Your task to perform on an android device: turn notification dots off Image 0: 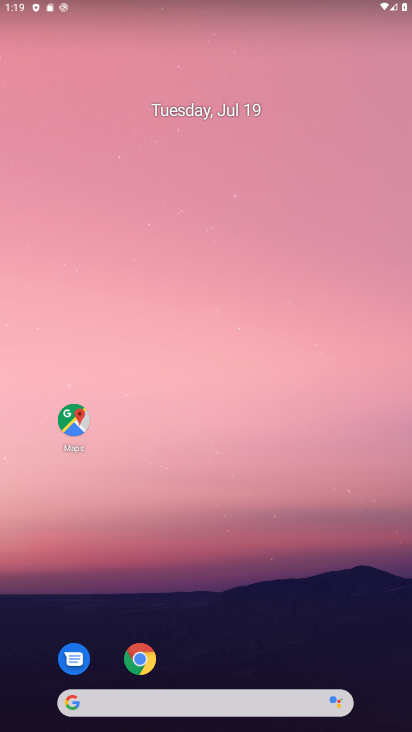
Step 0: drag from (256, 652) to (190, 146)
Your task to perform on an android device: turn notification dots off Image 1: 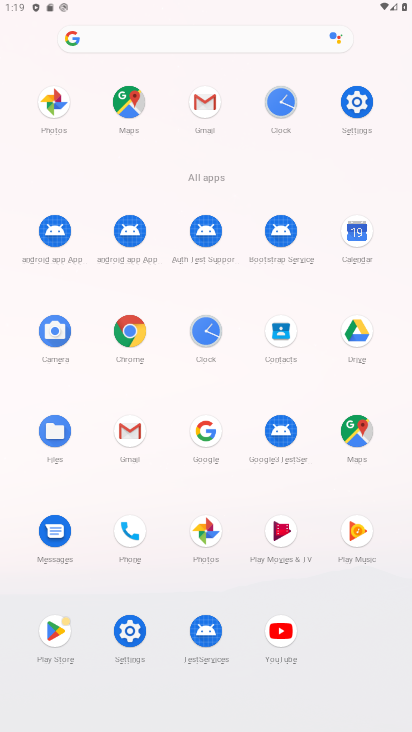
Step 1: click (351, 107)
Your task to perform on an android device: turn notification dots off Image 2: 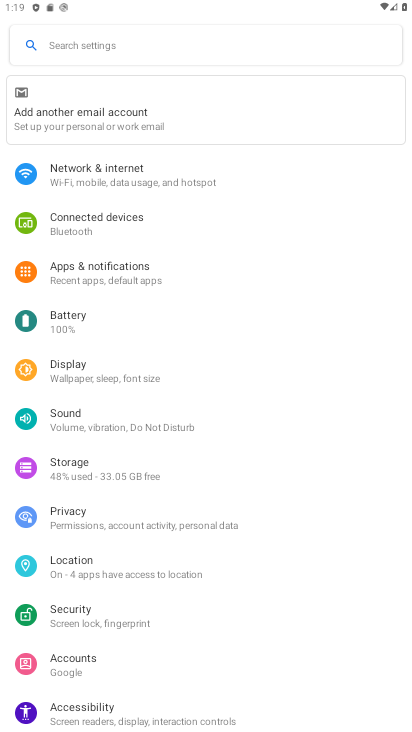
Step 2: click (134, 279)
Your task to perform on an android device: turn notification dots off Image 3: 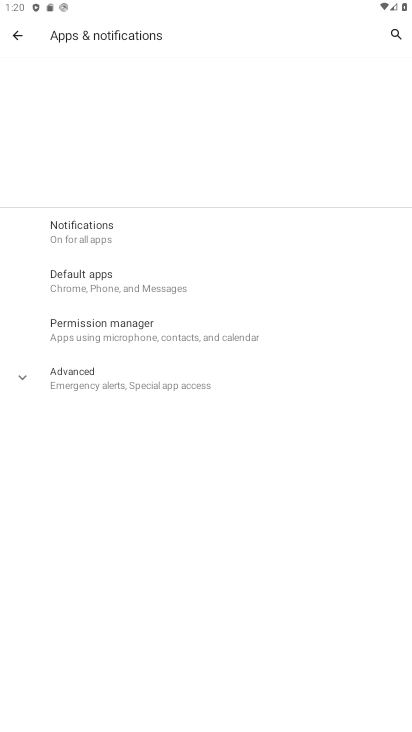
Step 3: click (139, 224)
Your task to perform on an android device: turn notification dots off Image 4: 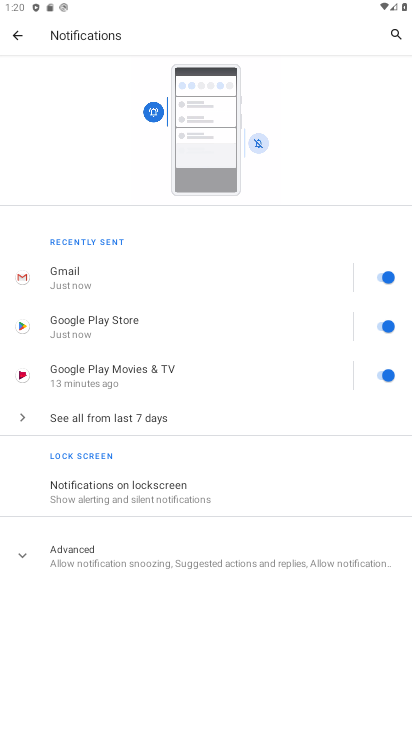
Step 4: click (180, 555)
Your task to perform on an android device: turn notification dots off Image 5: 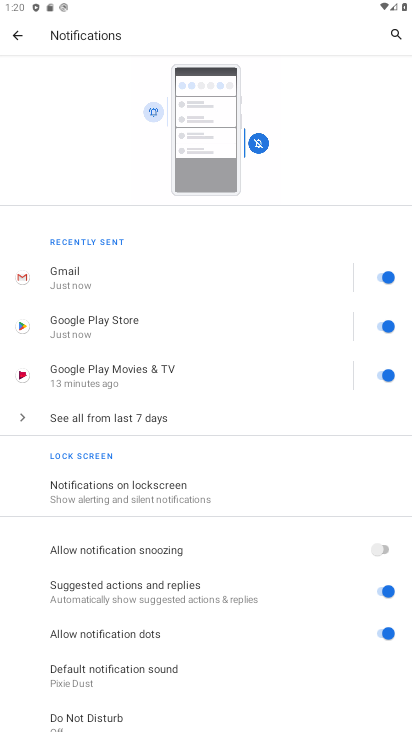
Step 5: click (393, 632)
Your task to perform on an android device: turn notification dots off Image 6: 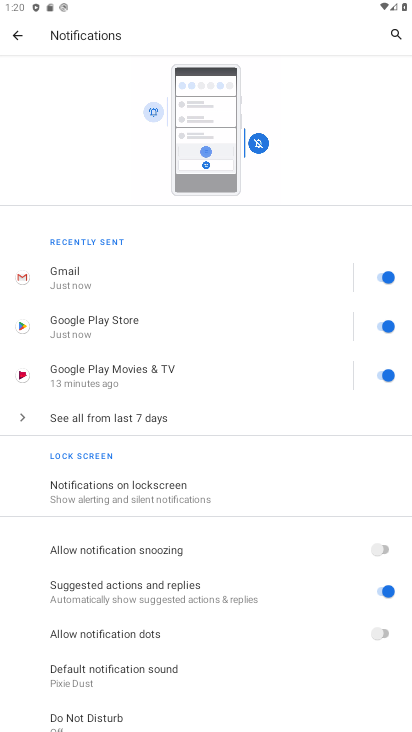
Step 6: task complete